Your task to perform on an android device: turn off javascript in the chrome app Image 0: 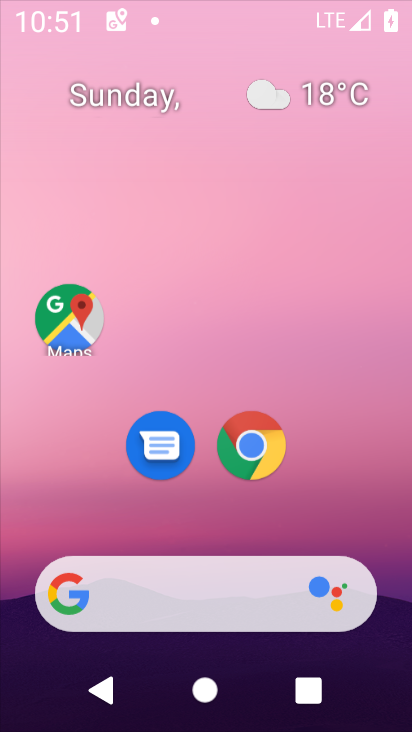
Step 0: press home button
Your task to perform on an android device: turn off javascript in the chrome app Image 1: 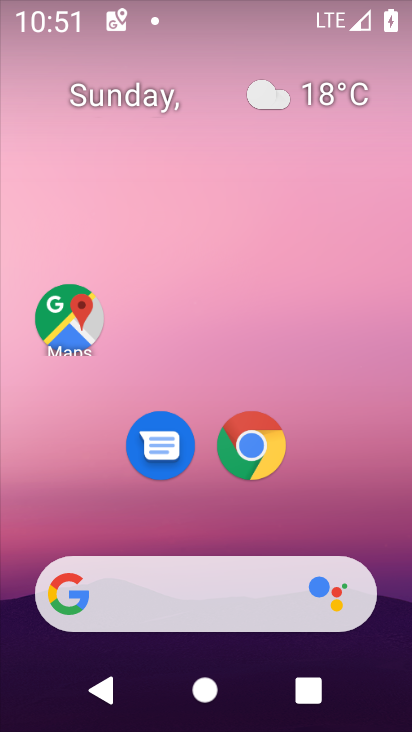
Step 1: click (250, 440)
Your task to perform on an android device: turn off javascript in the chrome app Image 2: 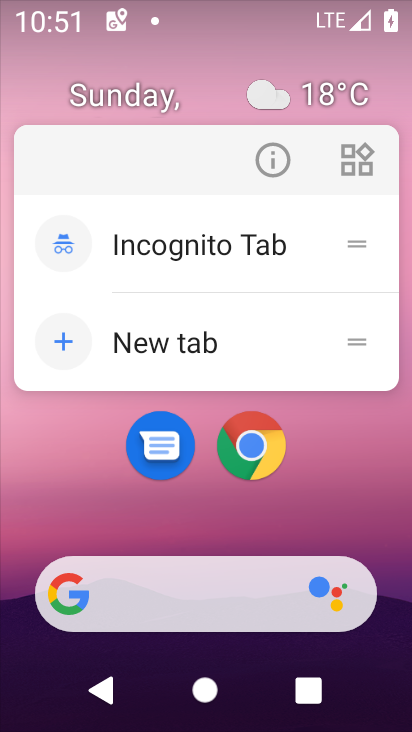
Step 2: click (250, 440)
Your task to perform on an android device: turn off javascript in the chrome app Image 3: 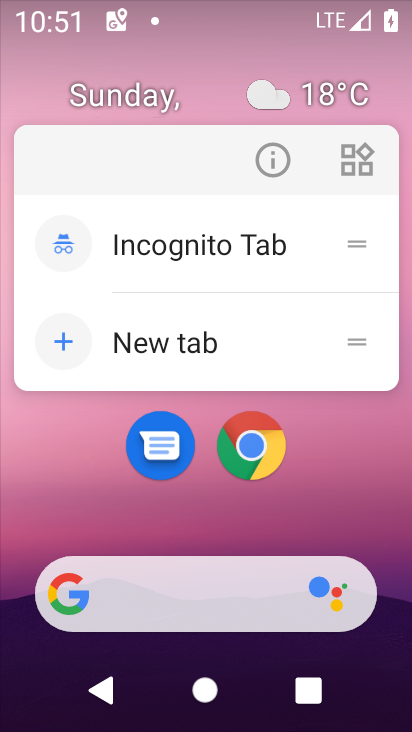
Step 3: click (251, 439)
Your task to perform on an android device: turn off javascript in the chrome app Image 4: 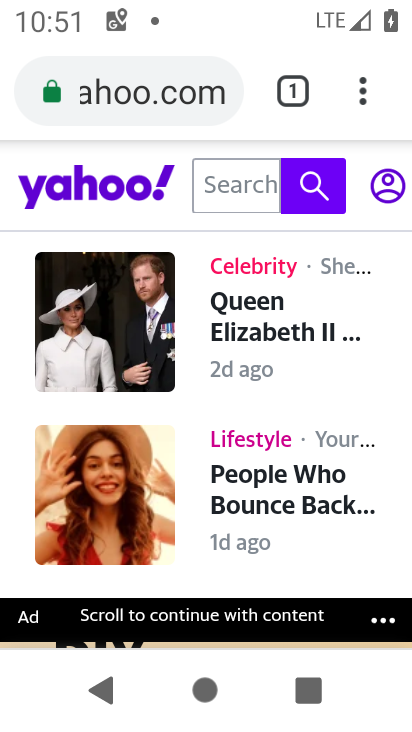
Step 4: click (367, 86)
Your task to perform on an android device: turn off javascript in the chrome app Image 5: 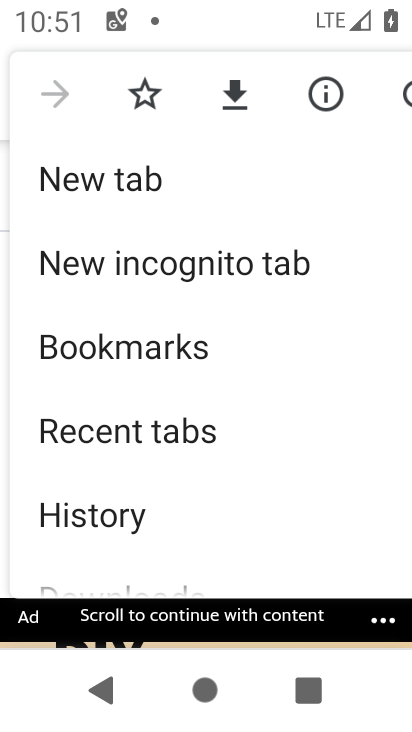
Step 5: drag from (199, 533) to (226, 73)
Your task to perform on an android device: turn off javascript in the chrome app Image 6: 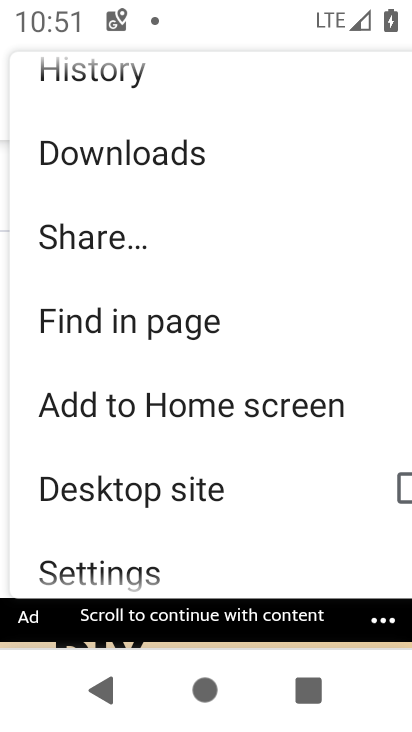
Step 6: click (187, 568)
Your task to perform on an android device: turn off javascript in the chrome app Image 7: 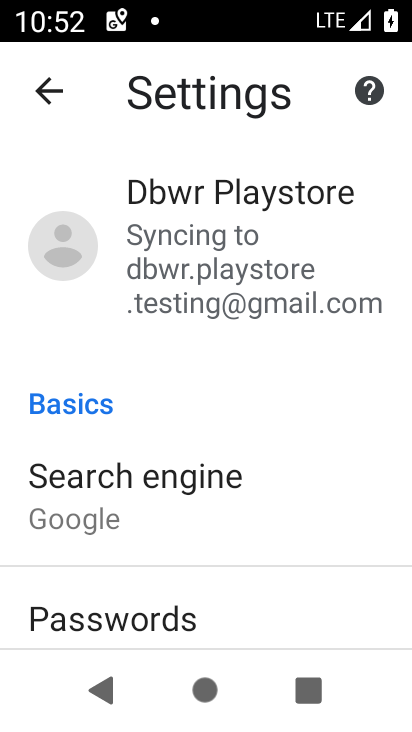
Step 7: drag from (224, 586) to (305, 146)
Your task to perform on an android device: turn off javascript in the chrome app Image 8: 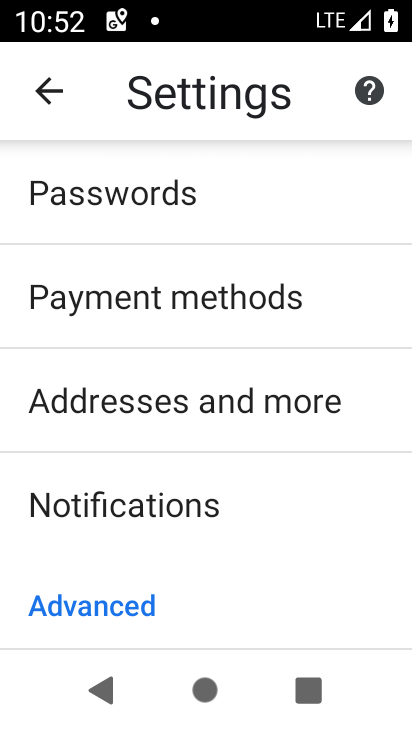
Step 8: drag from (201, 623) to (249, 170)
Your task to perform on an android device: turn off javascript in the chrome app Image 9: 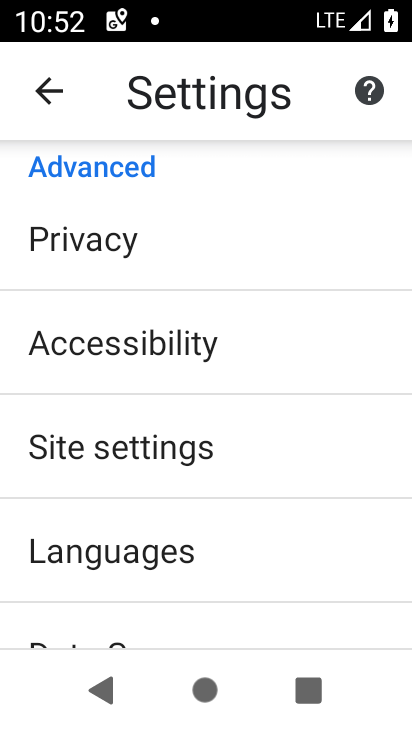
Step 9: click (233, 452)
Your task to perform on an android device: turn off javascript in the chrome app Image 10: 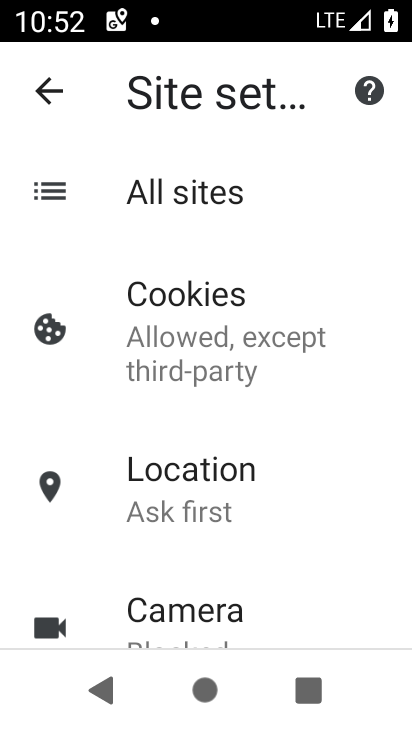
Step 10: drag from (225, 574) to (223, 144)
Your task to perform on an android device: turn off javascript in the chrome app Image 11: 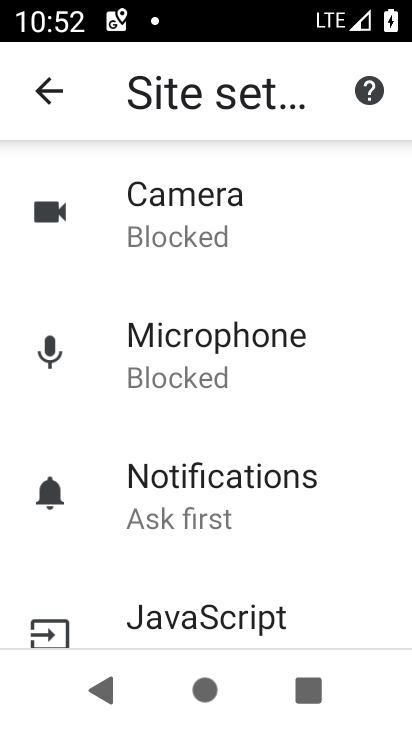
Step 11: click (295, 620)
Your task to perform on an android device: turn off javascript in the chrome app Image 12: 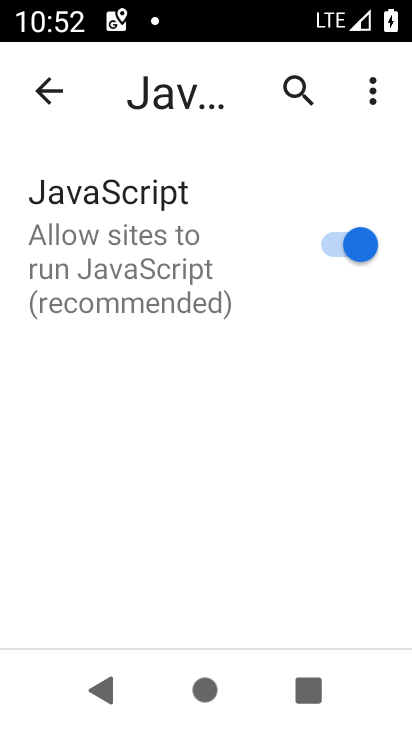
Step 12: click (332, 239)
Your task to perform on an android device: turn off javascript in the chrome app Image 13: 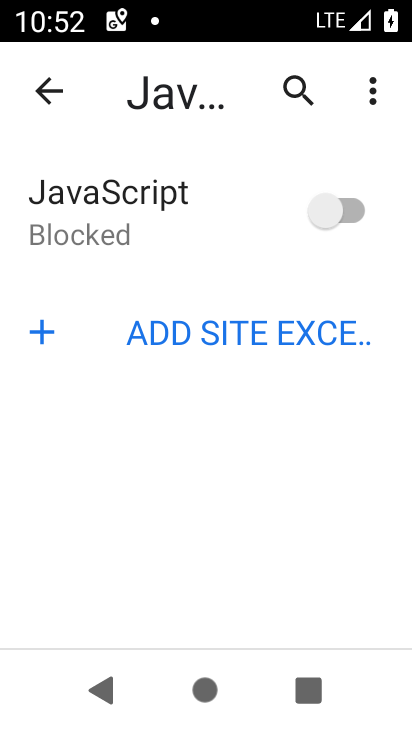
Step 13: task complete